Your task to perform on an android device: Go to Yahoo.com Image 0: 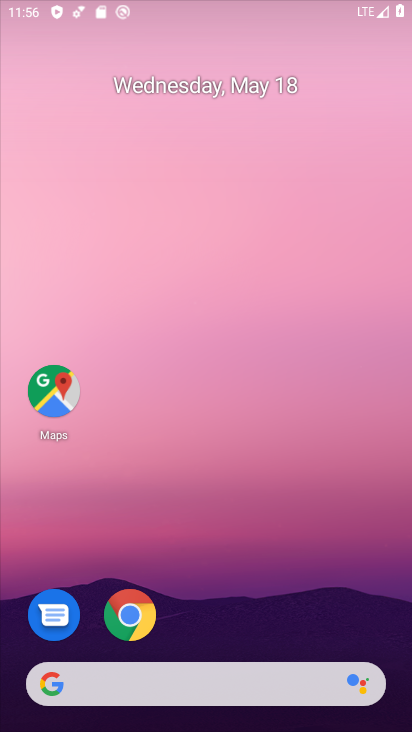
Step 0: press back button
Your task to perform on an android device: Go to Yahoo.com Image 1: 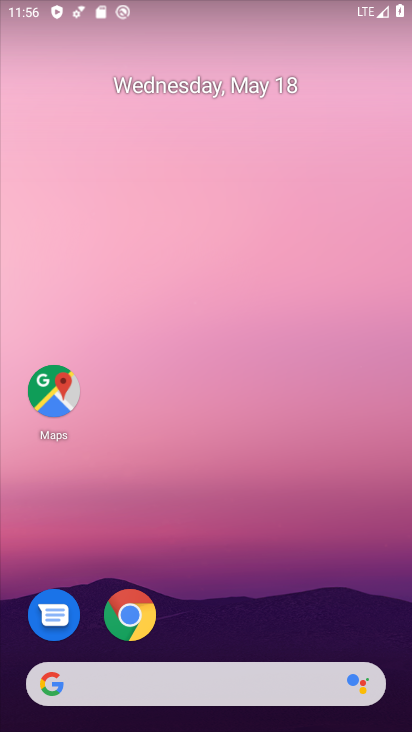
Step 1: press home button
Your task to perform on an android device: Go to Yahoo.com Image 2: 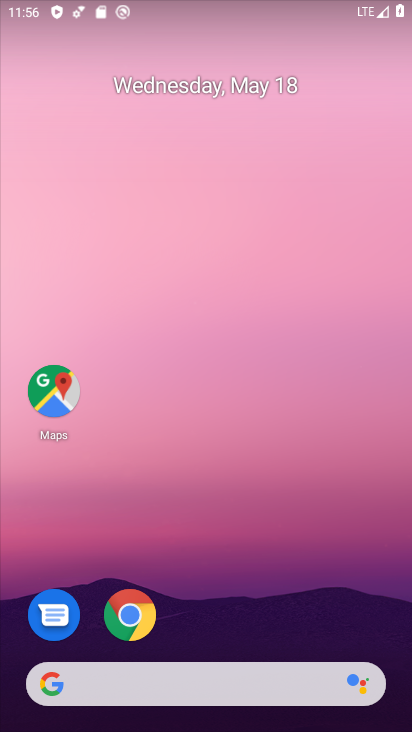
Step 2: drag from (246, 586) to (223, 20)
Your task to perform on an android device: Go to Yahoo.com Image 3: 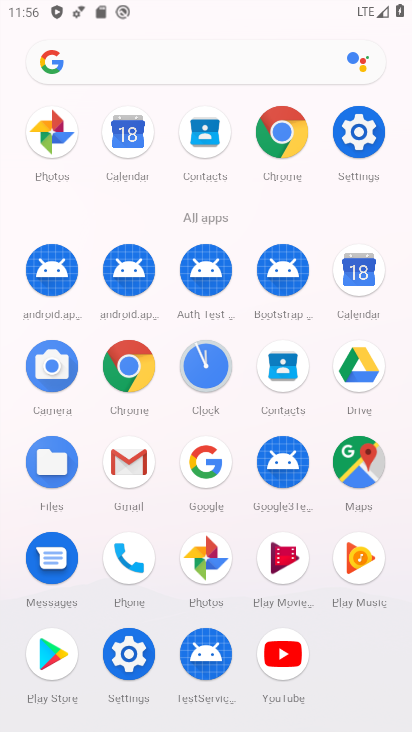
Step 3: click (126, 366)
Your task to perform on an android device: Go to Yahoo.com Image 4: 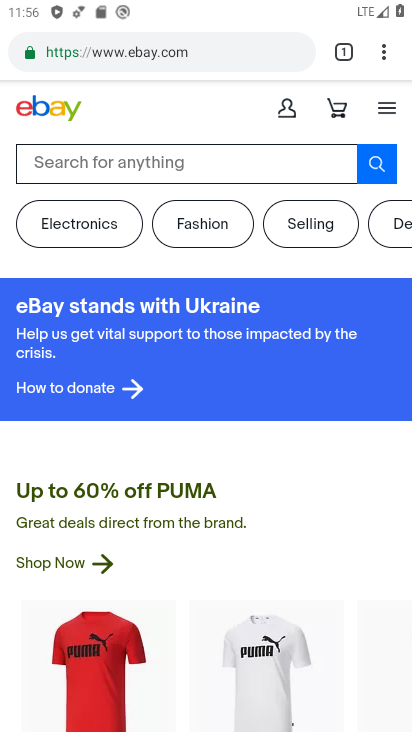
Step 4: click (166, 51)
Your task to perform on an android device: Go to Yahoo.com Image 5: 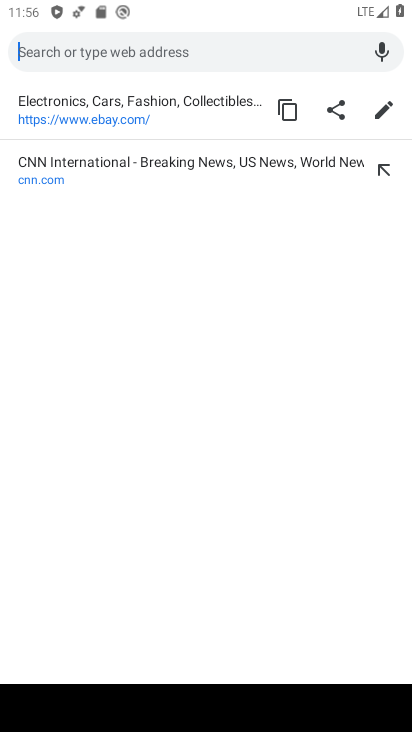
Step 5: type "Yahoo.com"
Your task to perform on an android device: Go to Yahoo.com Image 6: 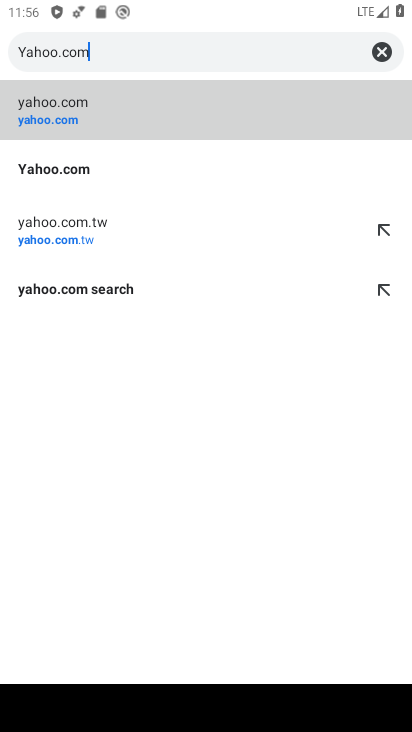
Step 6: click (139, 121)
Your task to perform on an android device: Go to Yahoo.com Image 7: 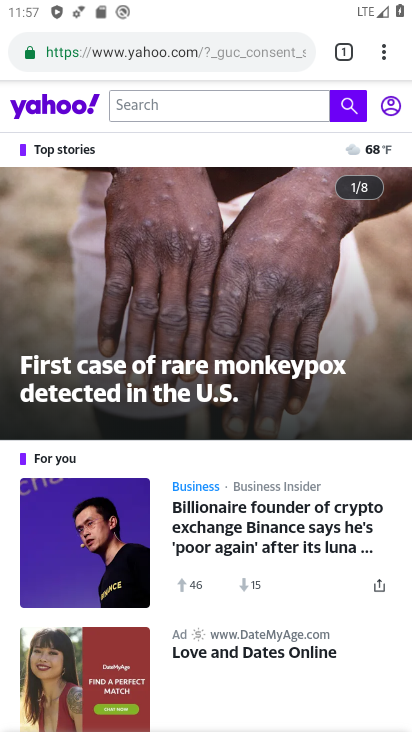
Step 7: task complete